Your task to perform on an android device: See recent photos Image 0: 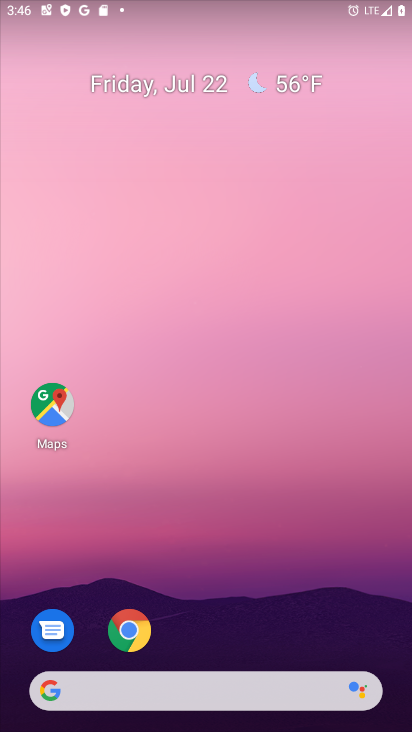
Step 0: drag from (191, 696) to (162, 233)
Your task to perform on an android device: See recent photos Image 1: 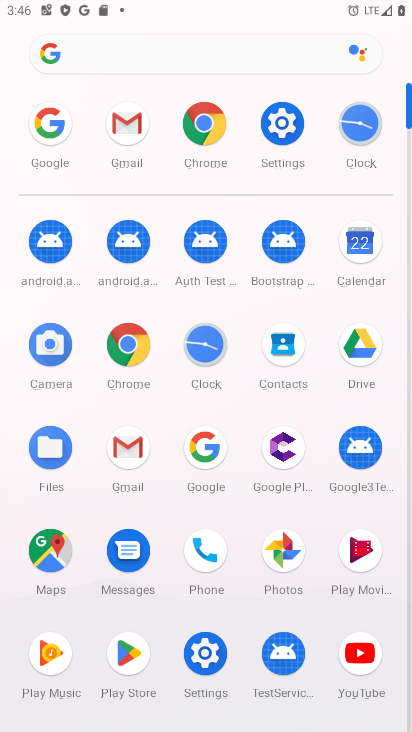
Step 1: click (274, 565)
Your task to perform on an android device: See recent photos Image 2: 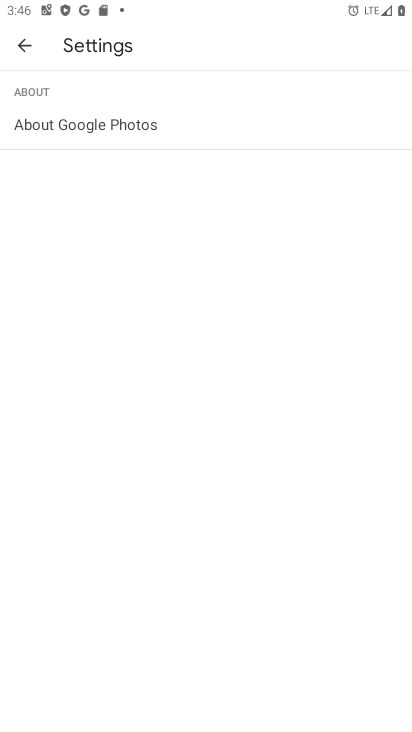
Step 2: click (29, 44)
Your task to perform on an android device: See recent photos Image 3: 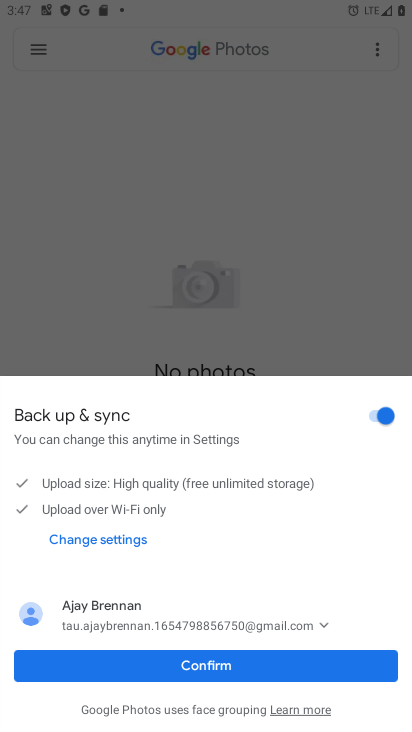
Step 3: click (159, 655)
Your task to perform on an android device: See recent photos Image 4: 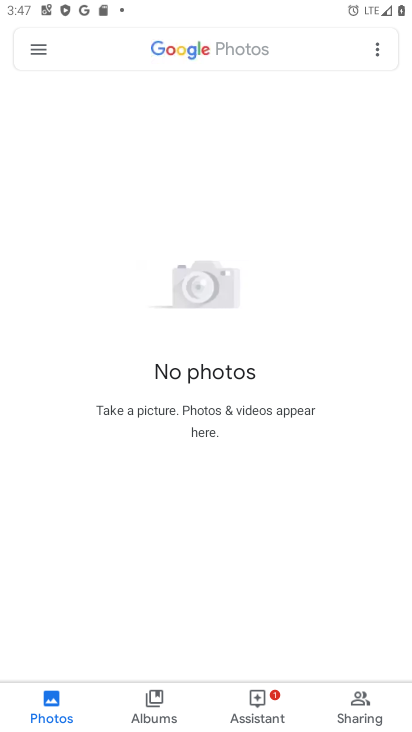
Step 4: task complete